Your task to perform on an android device: open app "Adobe Express: Graphic Design" Image 0: 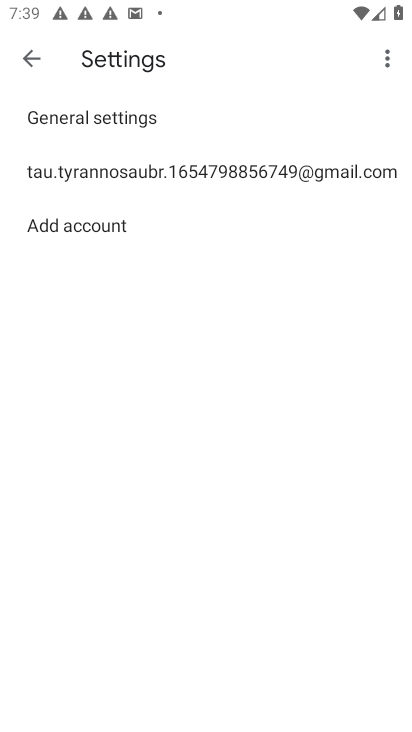
Step 0: press home button
Your task to perform on an android device: open app "Adobe Express: Graphic Design" Image 1: 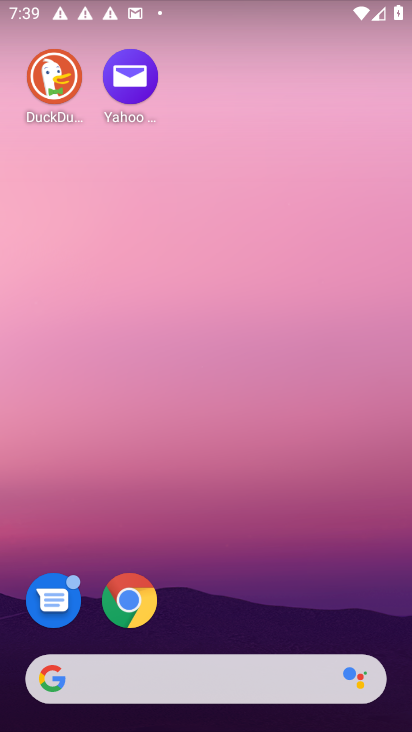
Step 1: drag from (183, 535) to (231, 4)
Your task to perform on an android device: open app "Adobe Express: Graphic Design" Image 2: 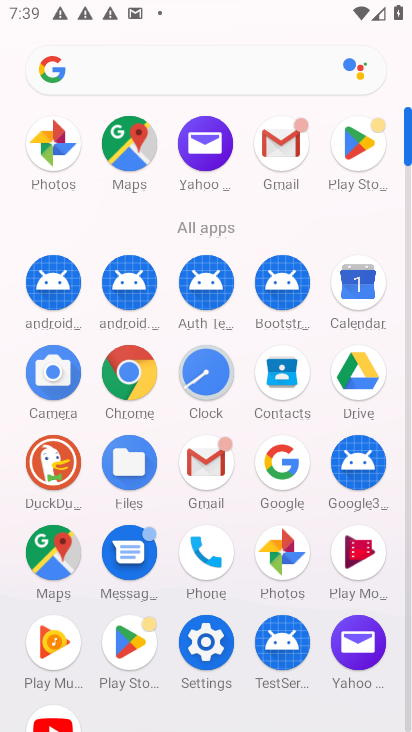
Step 2: click (359, 145)
Your task to perform on an android device: open app "Adobe Express: Graphic Design" Image 3: 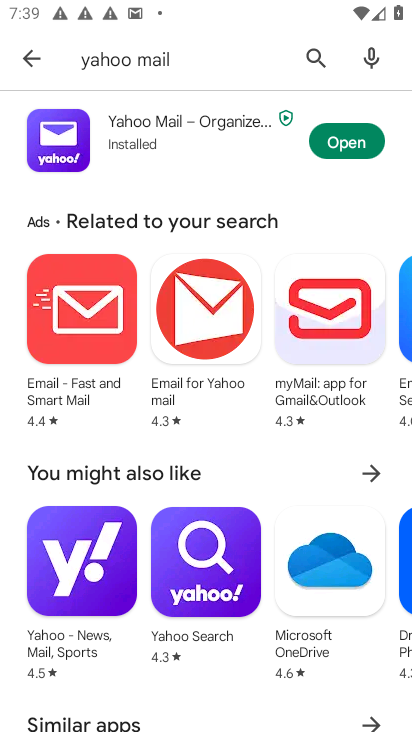
Step 3: click (147, 62)
Your task to perform on an android device: open app "Adobe Express: Graphic Design" Image 4: 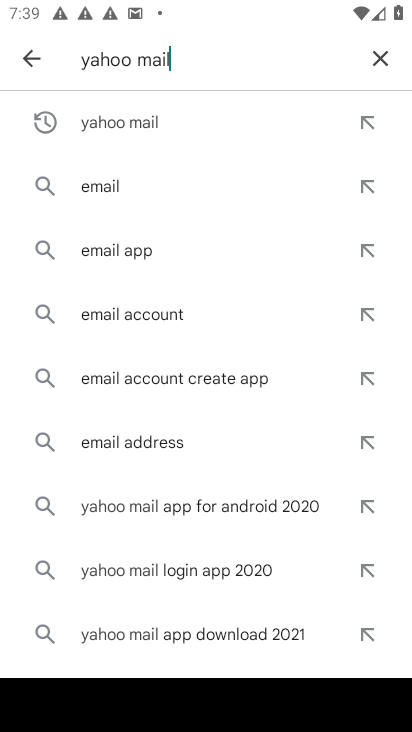
Step 4: click (373, 50)
Your task to perform on an android device: open app "Adobe Express: Graphic Design" Image 5: 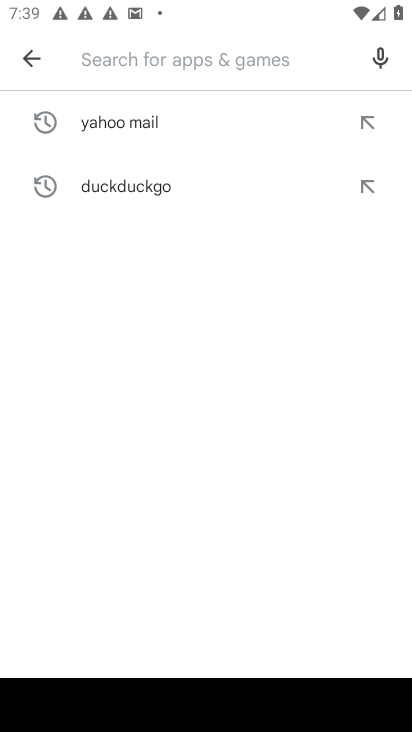
Step 5: type "Adobe Express"
Your task to perform on an android device: open app "Adobe Express: Graphic Design" Image 6: 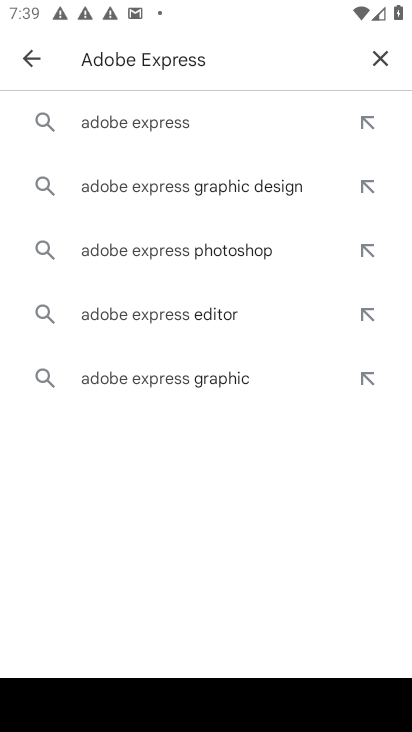
Step 6: click (118, 127)
Your task to perform on an android device: open app "Adobe Express: Graphic Design" Image 7: 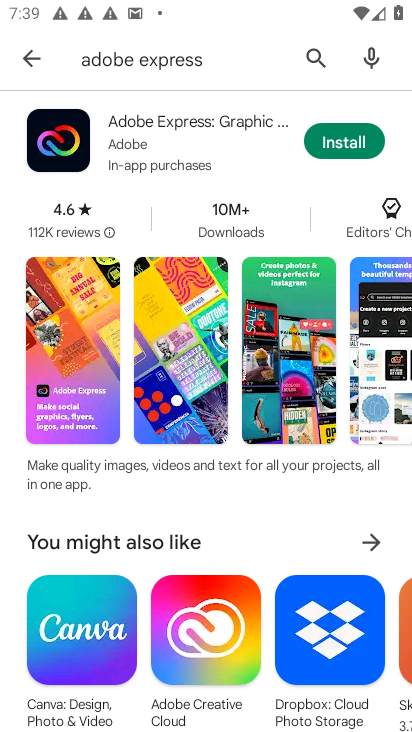
Step 7: task complete